Your task to perform on an android device: turn pop-ups on in chrome Image 0: 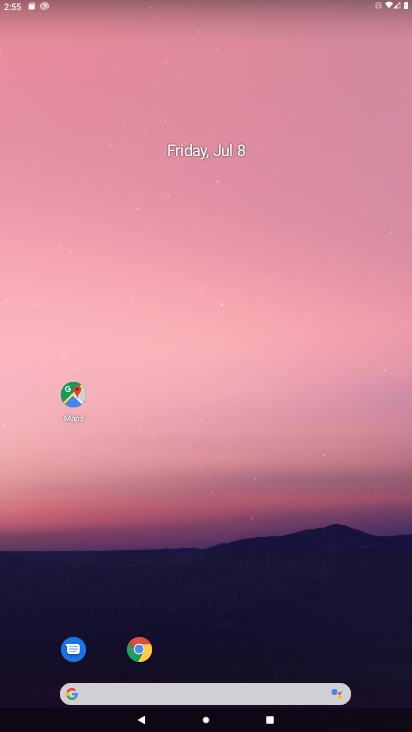
Step 0: click (139, 650)
Your task to perform on an android device: turn pop-ups on in chrome Image 1: 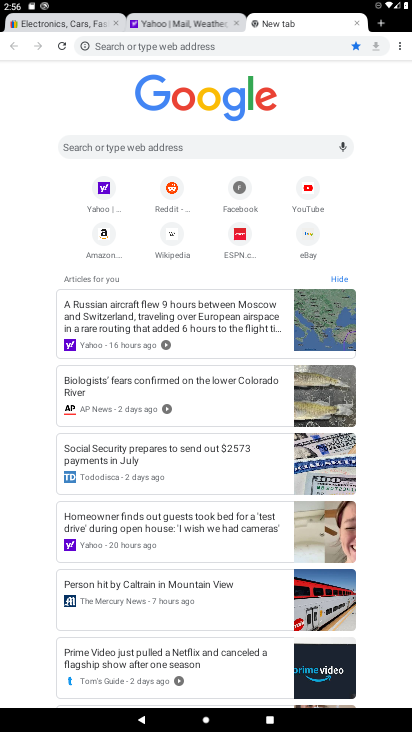
Step 1: click (401, 46)
Your task to perform on an android device: turn pop-ups on in chrome Image 2: 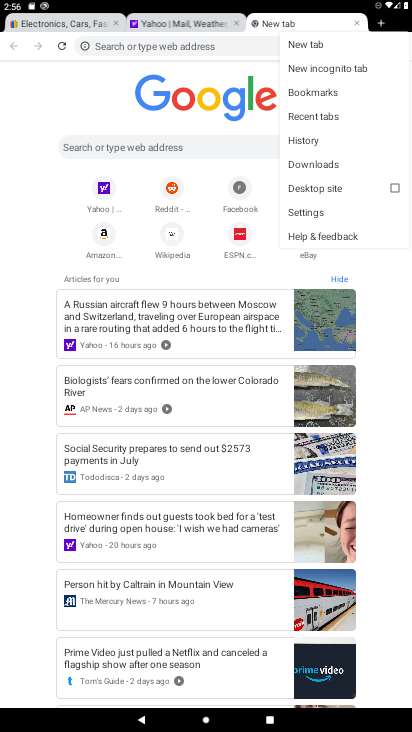
Step 2: click (309, 210)
Your task to perform on an android device: turn pop-ups on in chrome Image 3: 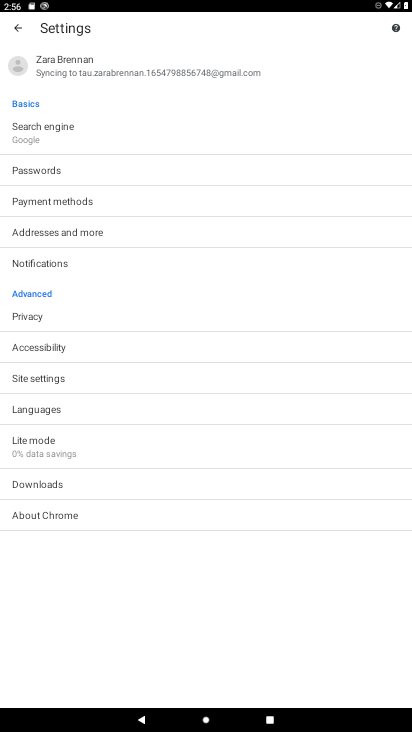
Step 3: click (37, 377)
Your task to perform on an android device: turn pop-ups on in chrome Image 4: 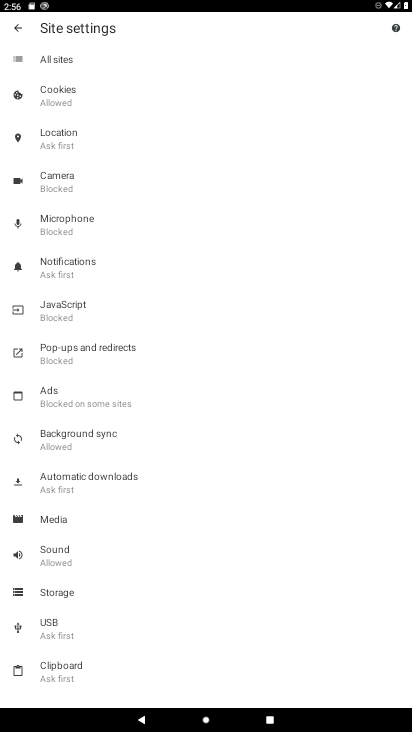
Step 4: click (64, 346)
Your task to perform on an android device: turn pop-ups on in chrome Image 5: 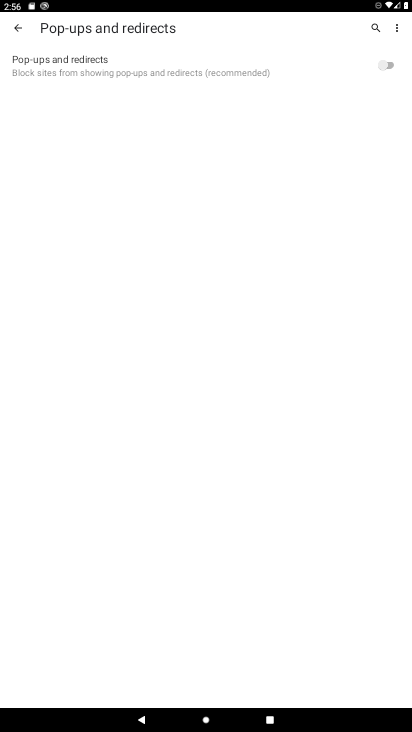
Step 5: click (391, 63)
Your task to perform on an android device: turn pop-ups on in chrome Image 6: 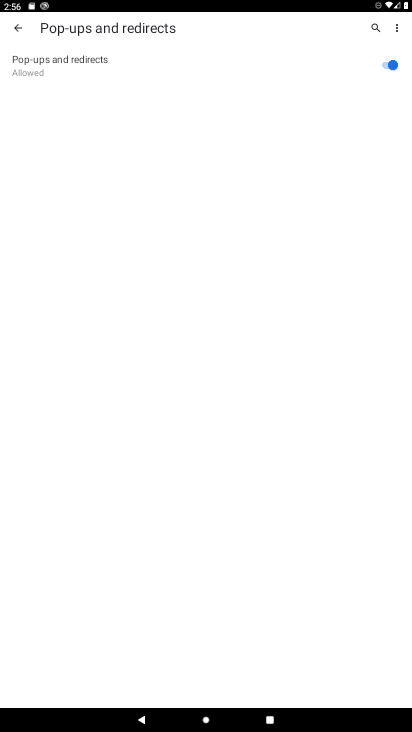
Step 6: task complete